Your task to perform on an android device: open app "Facebook Messenger" (install if not already installed) and go to login screen Image 0: 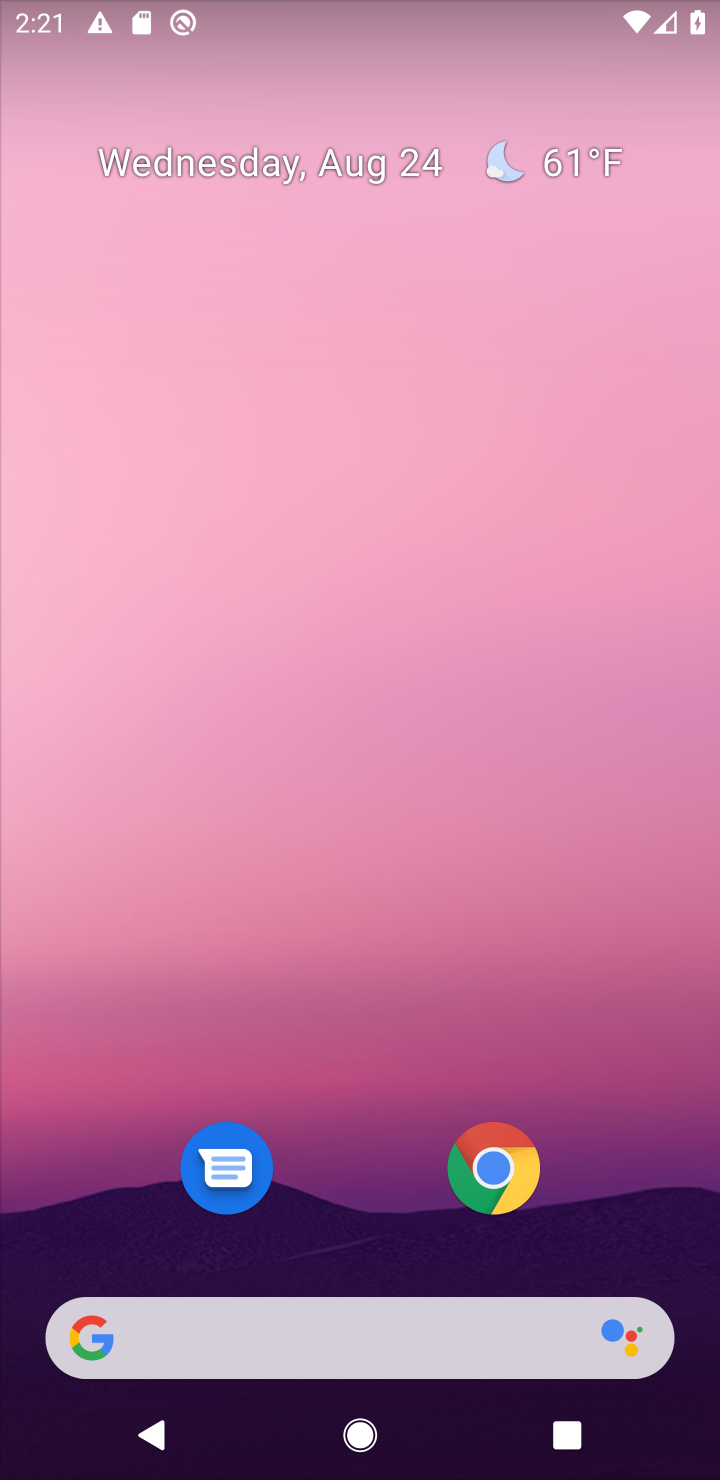
Step 0: drag from (665, 1227) to (532, 211)
Your task to perform on an android device: open app "Facebook Messenger" (install if not already installed) and go to login screen Image 1: 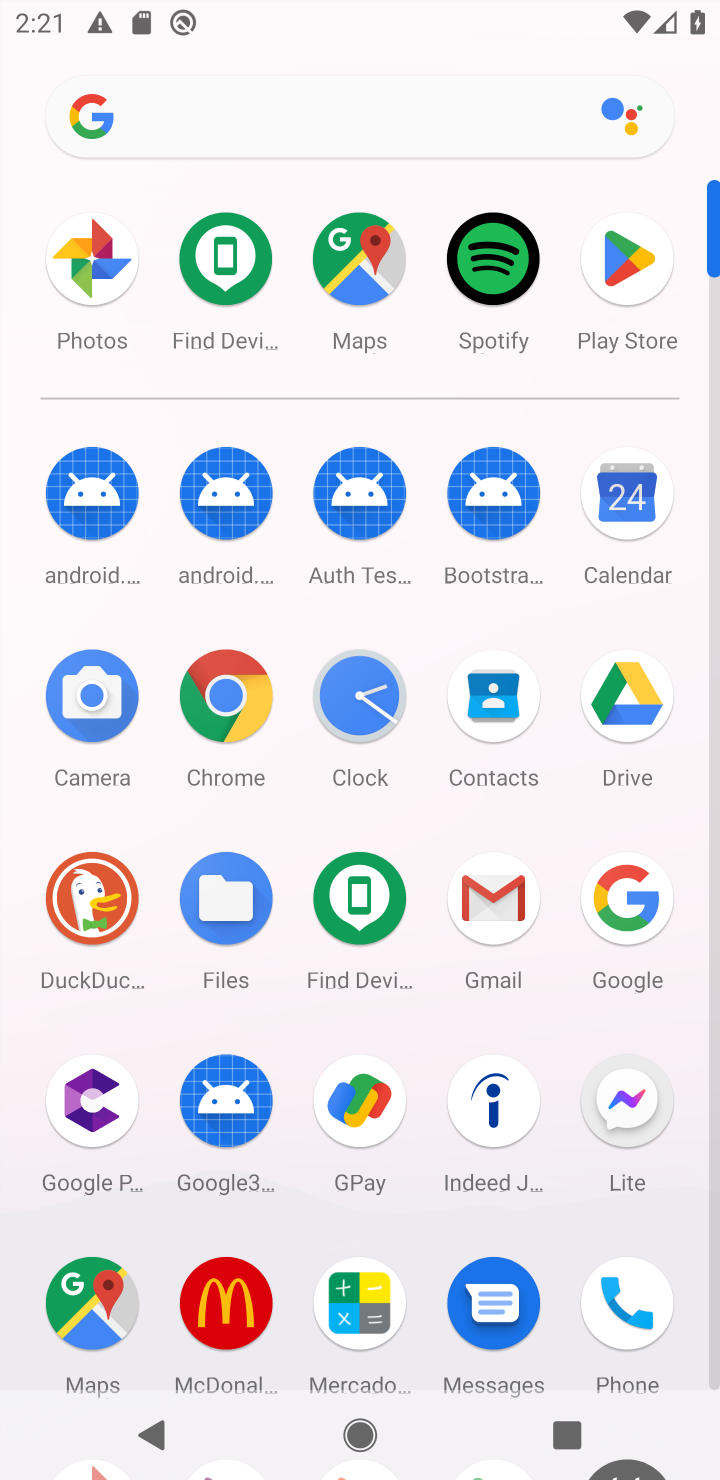
Step 1: click (718, 1308)
Your task to perform on an android device: open app "Facebook Messenger" (install if not already installed) and go to login screen Image 2: 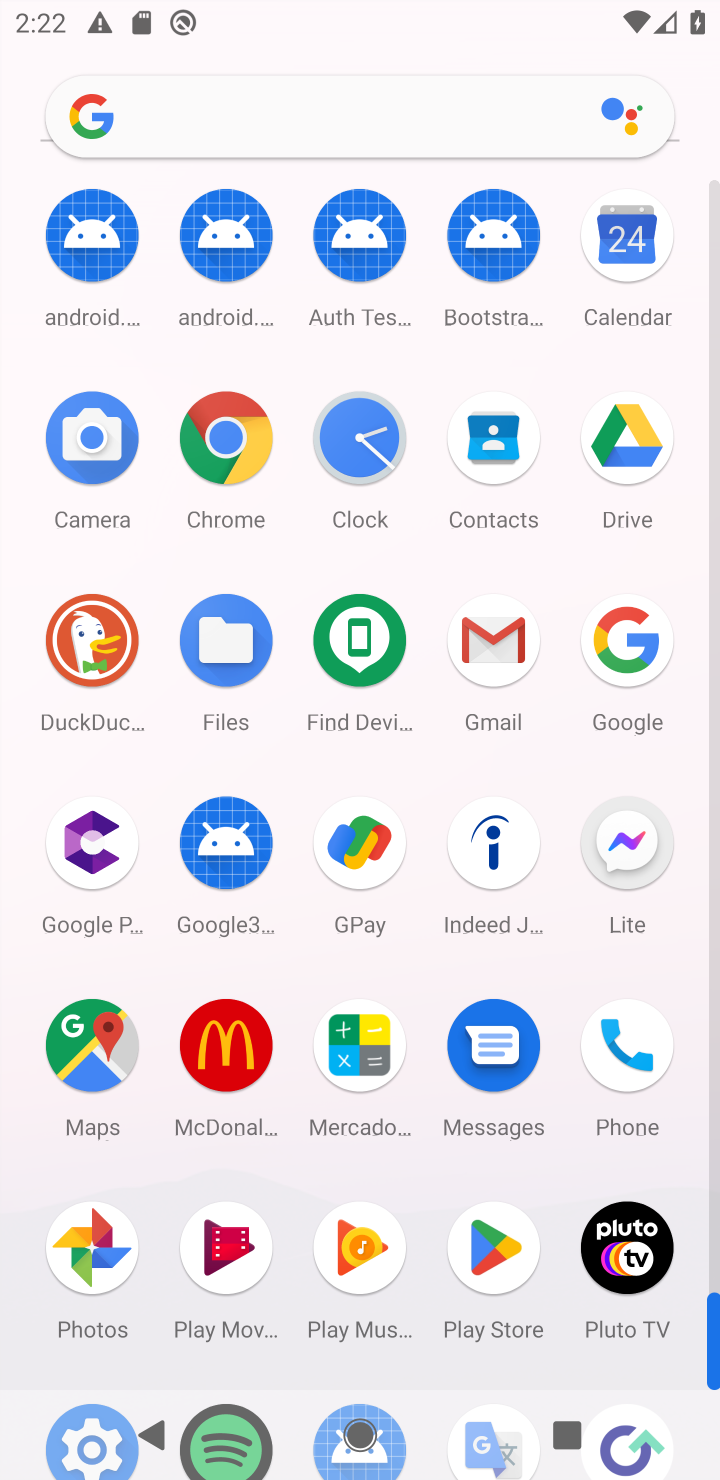
Step 2: click (499, 1244)
Your task to perform on an android device: open app "Facebook Messenger" (install if not already installed) and go to login screen Image 3: 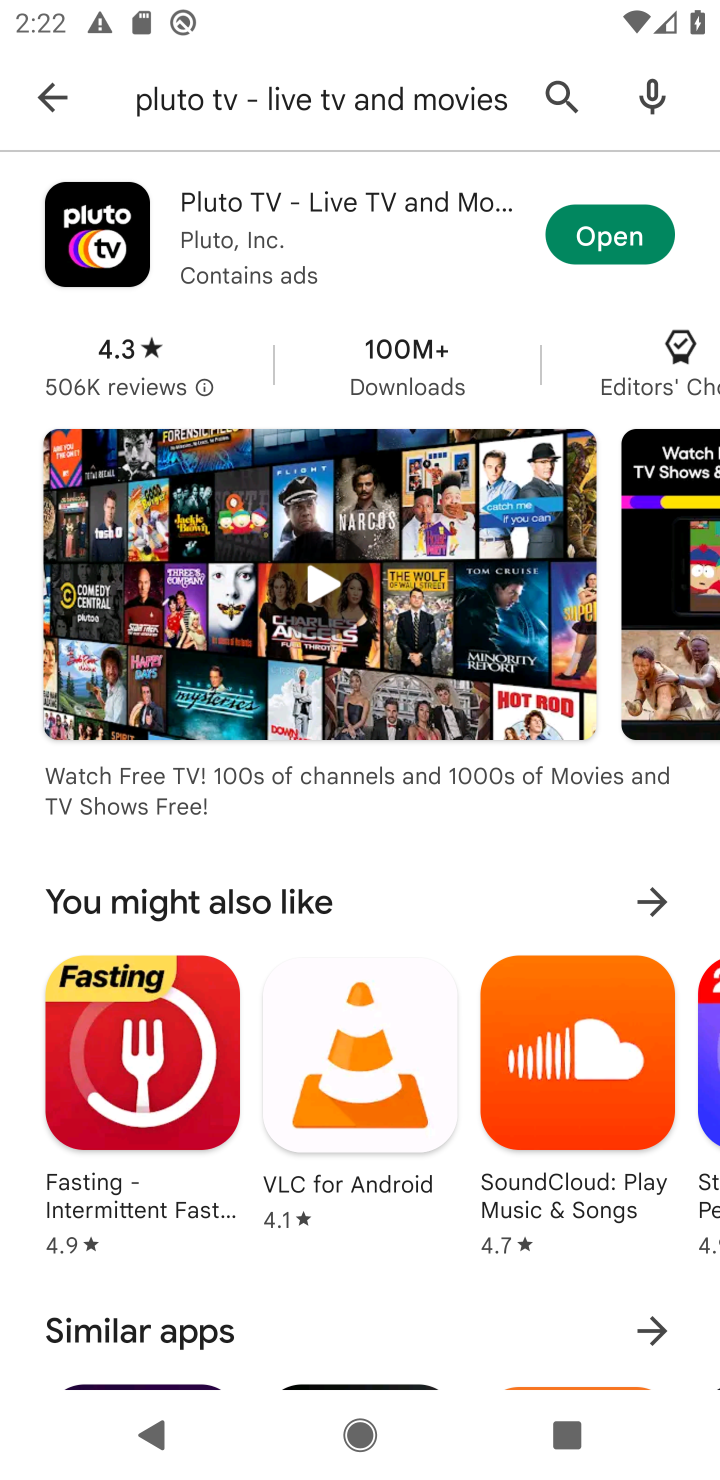
Step 3: click (564, 95)
Your task to perform on an android device: open app "Facebook Messenger" (install if not already installed) and go to login screen Image 4: 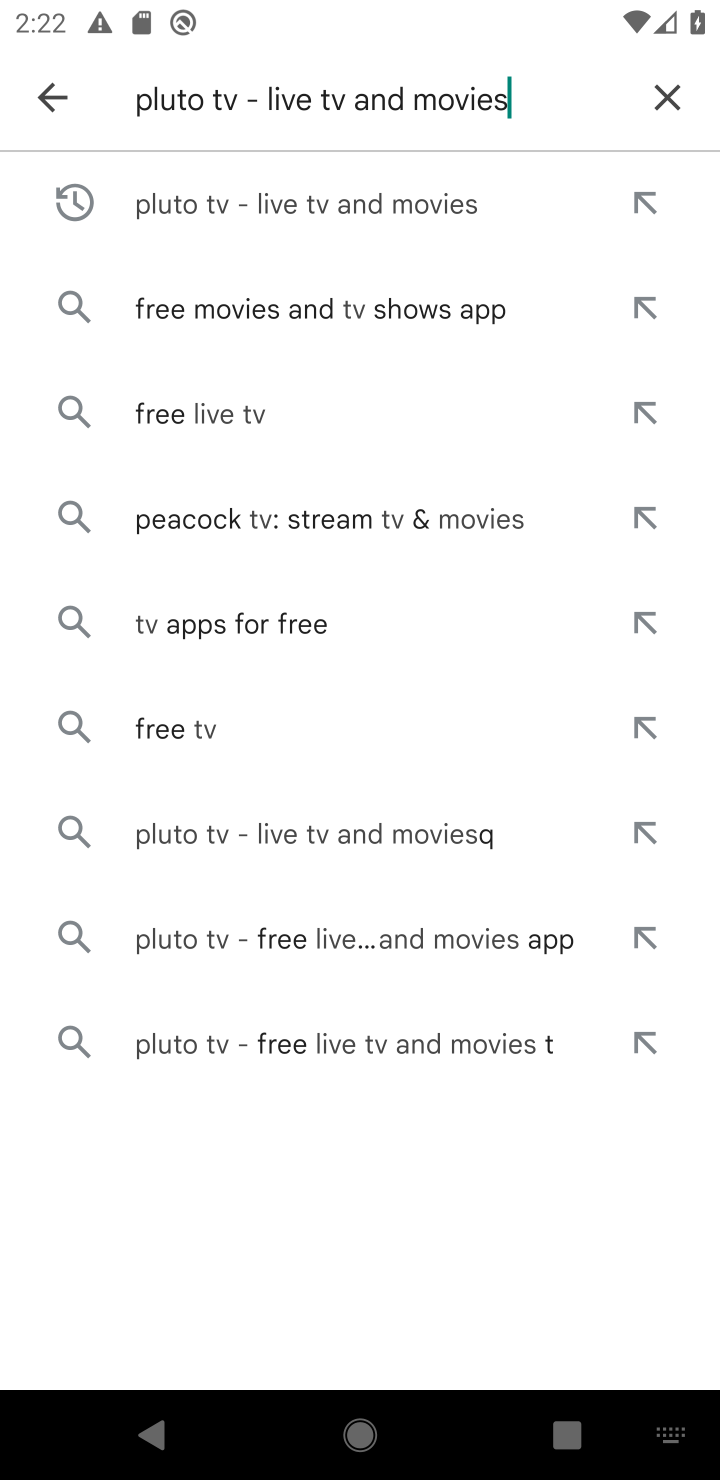
Step 4: click (660, 93)
Your task to perform on an android device: open app "Facebook Messenger" (install if not already installed) and go to login screen Image 5: 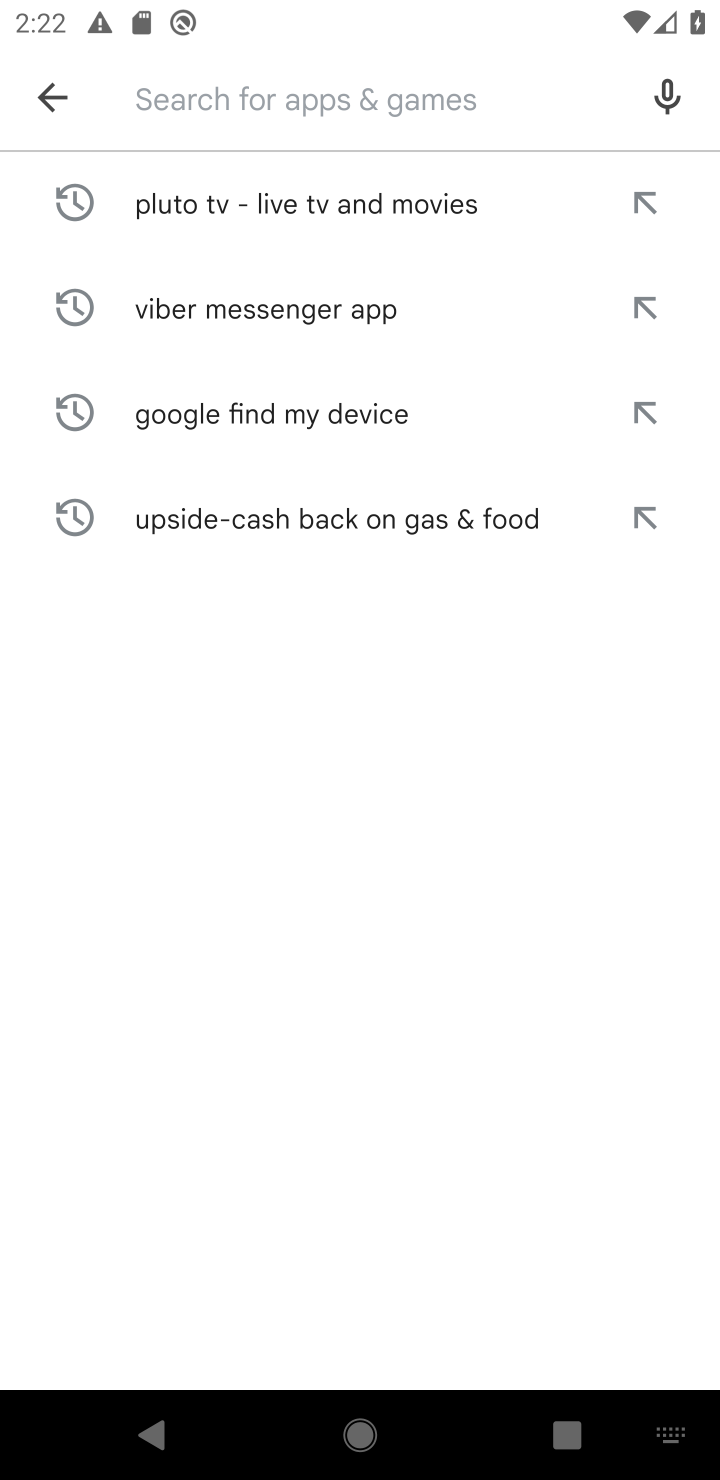
Step 5: type "Facebook Messenger"
Your task to perform on an android device: open app "Facebook Messenger" (install if not already installed) and go to login screen Image 6: 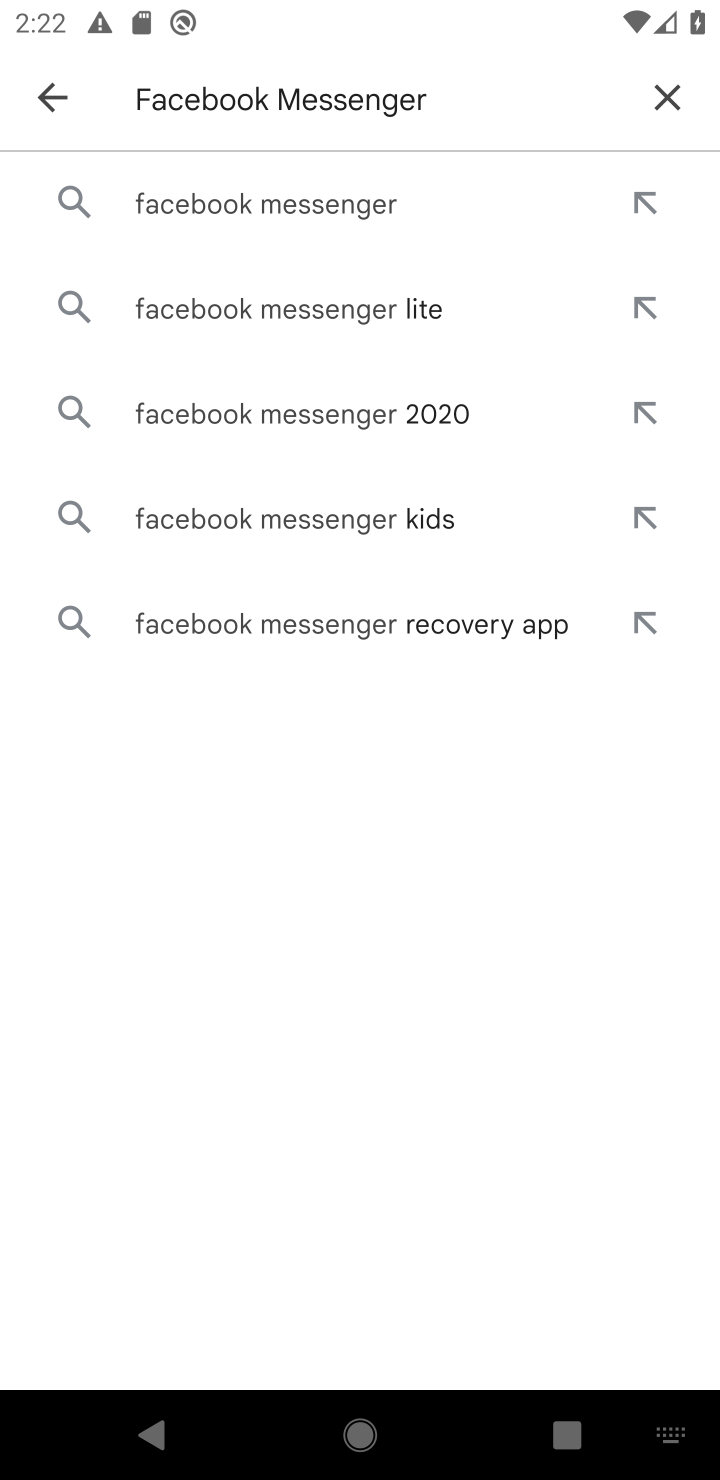
Step 6: click (219, 199)
Your task to perform on an android device: open app "Facebook Messenger" (install if not already installed) and go to login screen Image 7: 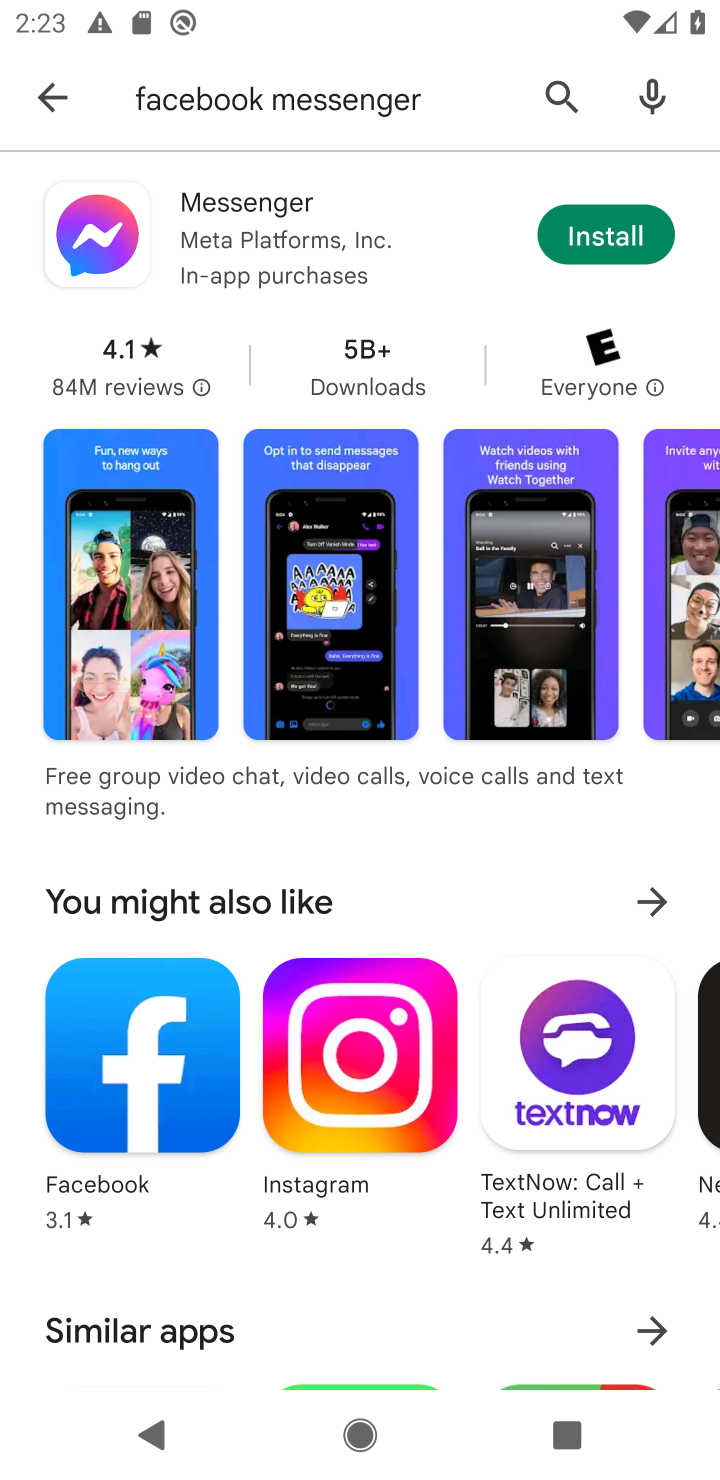
Step 7: click (227, 211)
Your task to perform on an android device: open app "Facebook Messenger" (install if not already installed) and go to login screen Image 8: 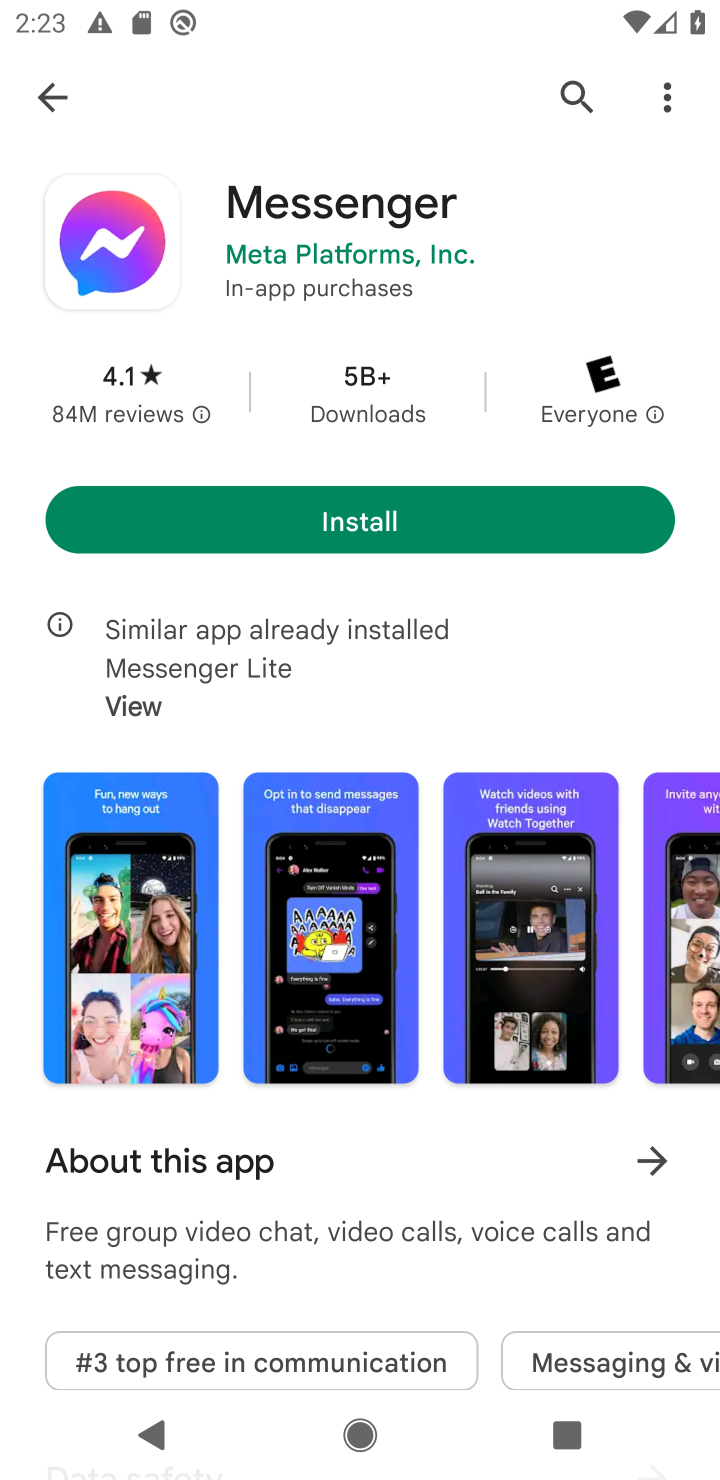
Step 8: click (361, 527)
Your task to perform on an android device: open app "Facebook Messenger" (install if not already installed) and go to login screen Image 9: 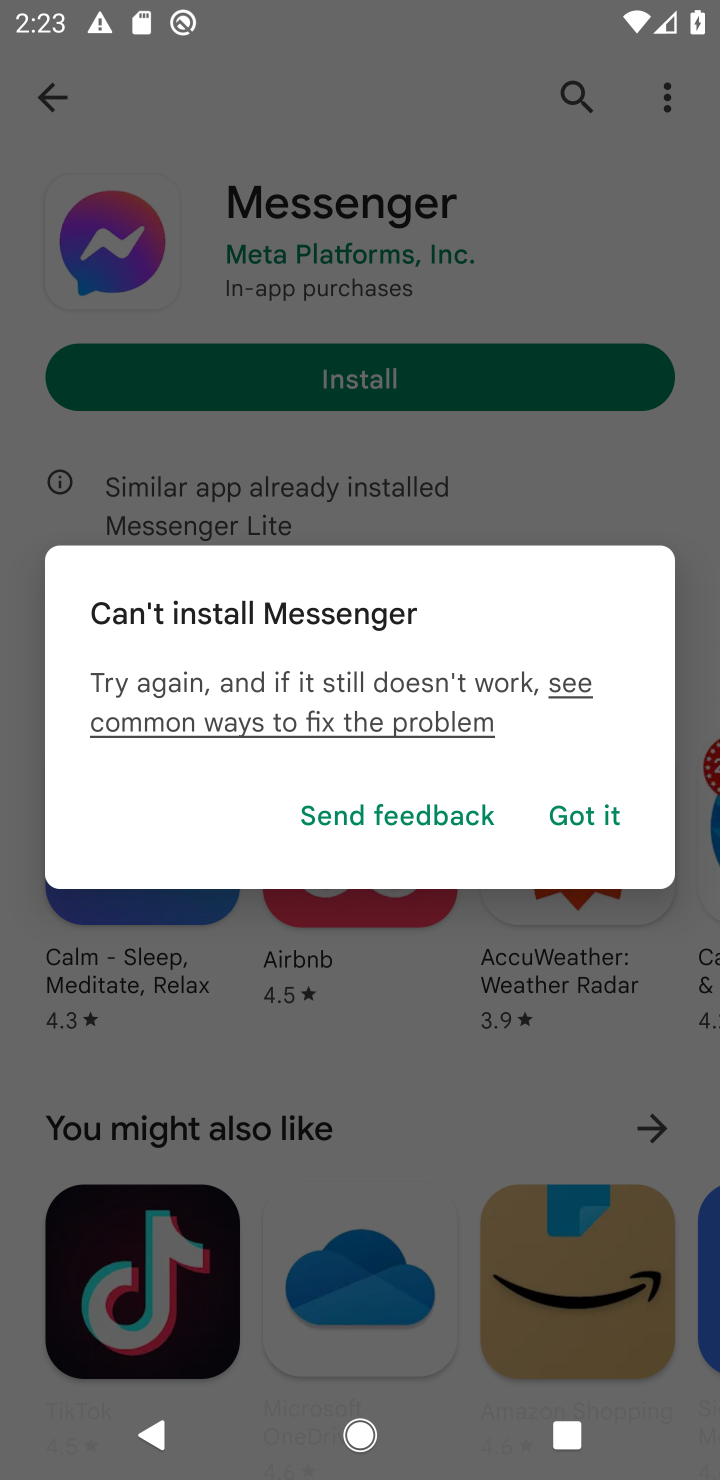
Step 9: click (577, 818)
Your task to perform on an android device: open app "Facebook Messenger" (install if not already installed) and go to login screen Image 10: 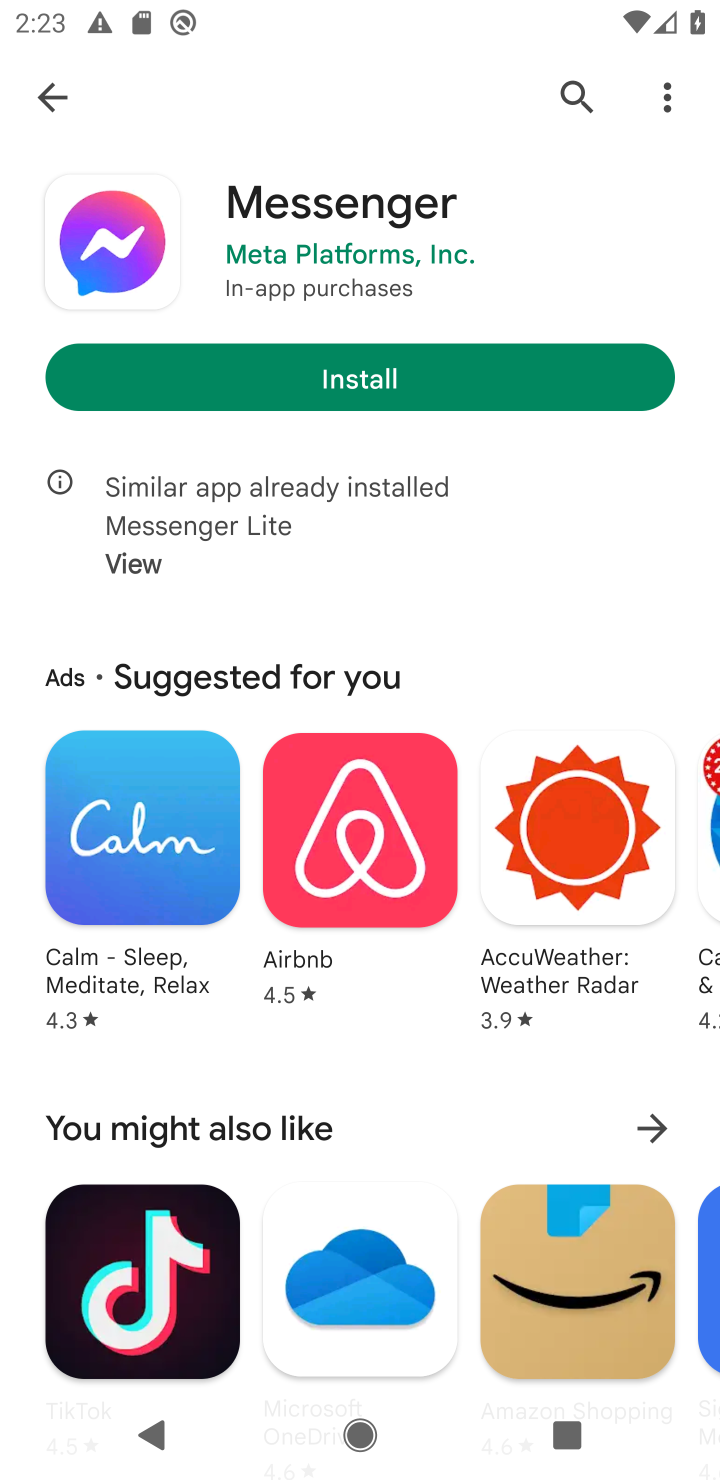
Step 10: task complete